Your task to perform on an android device: Open the web browser Image 0: 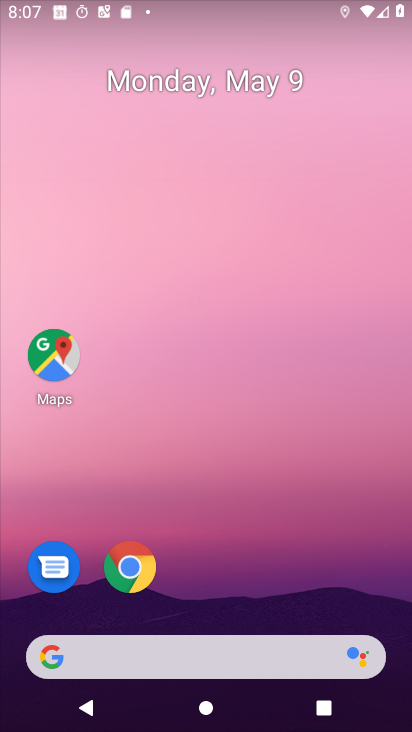
Step 0: click (131, 579)
Your task to perform on an android device: Open the web browser Image 1: 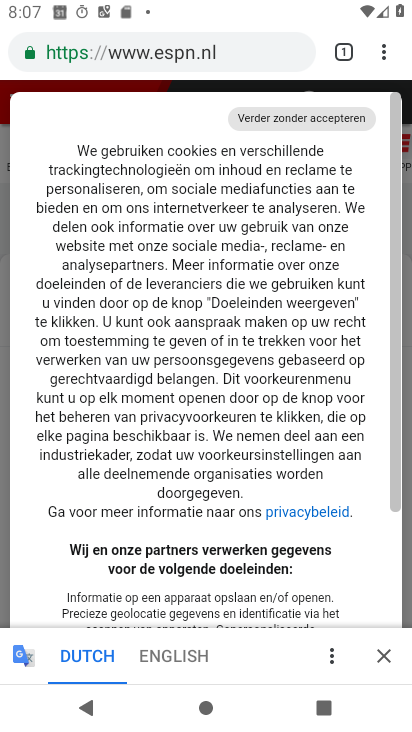
Step 1: task complete